Your task to perform on an android device: Open privacy settings Image 0: 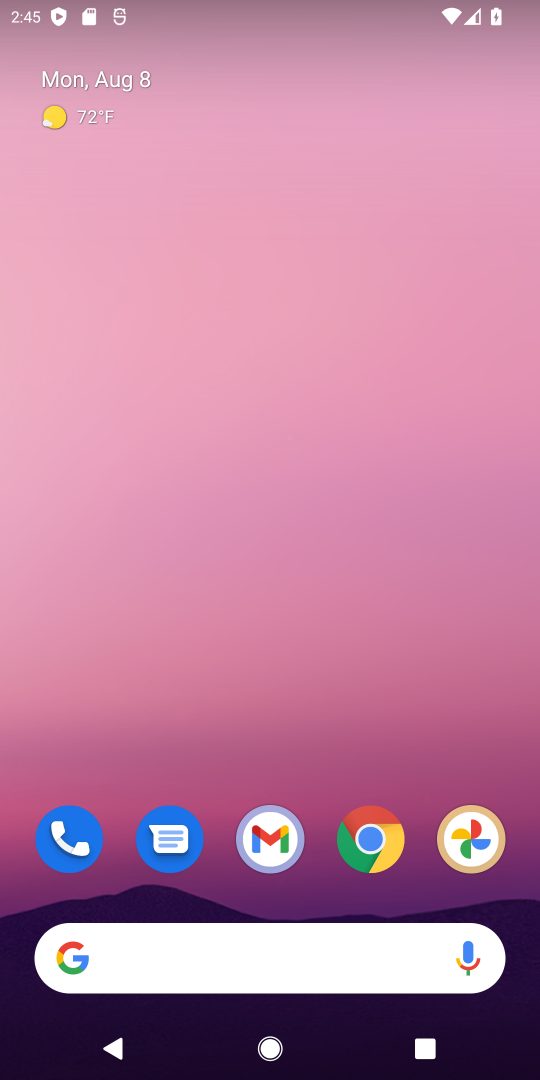
Step 0: drag from (421, 738) to (456, 163)
Your task to perform on an android device: Open privacy settings Image 1: 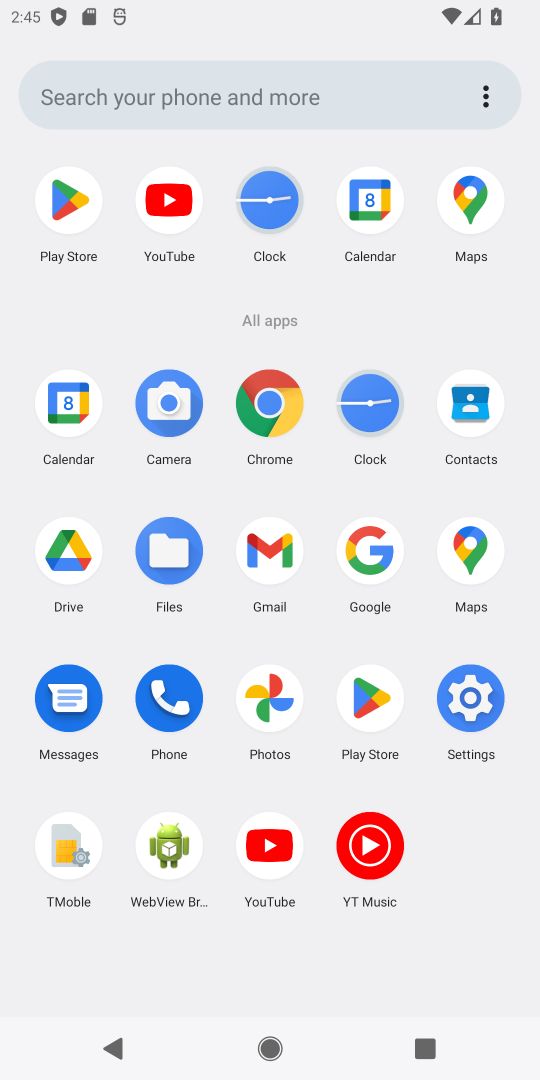
Step 1: click (453, 697)
Your task to perform on an android device: Open privacy settings Image 2: 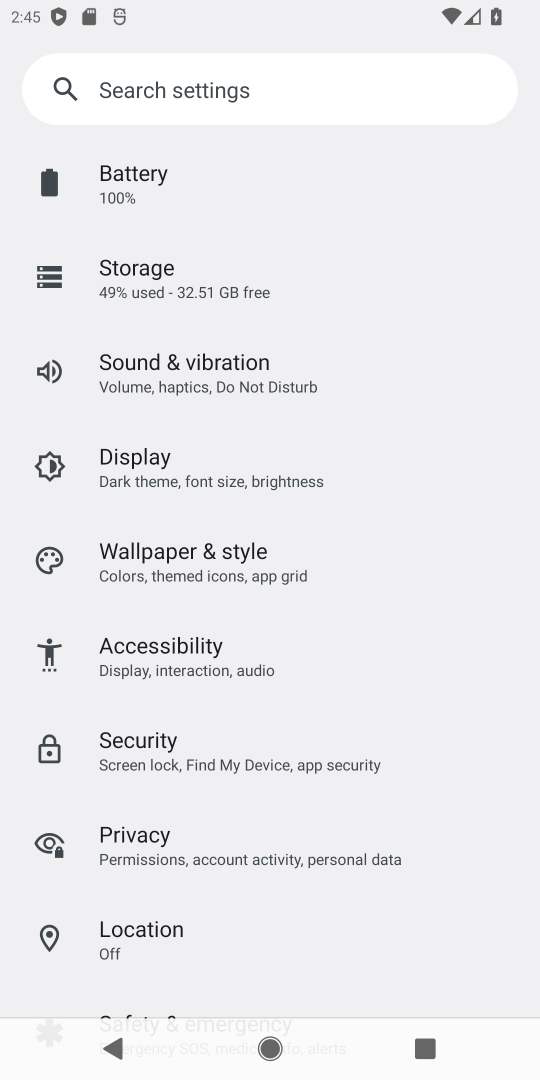
Step 2: drag from (455, 789) to (472, 656)
Your task to perform on an android device: Open privacy settings Image 3: 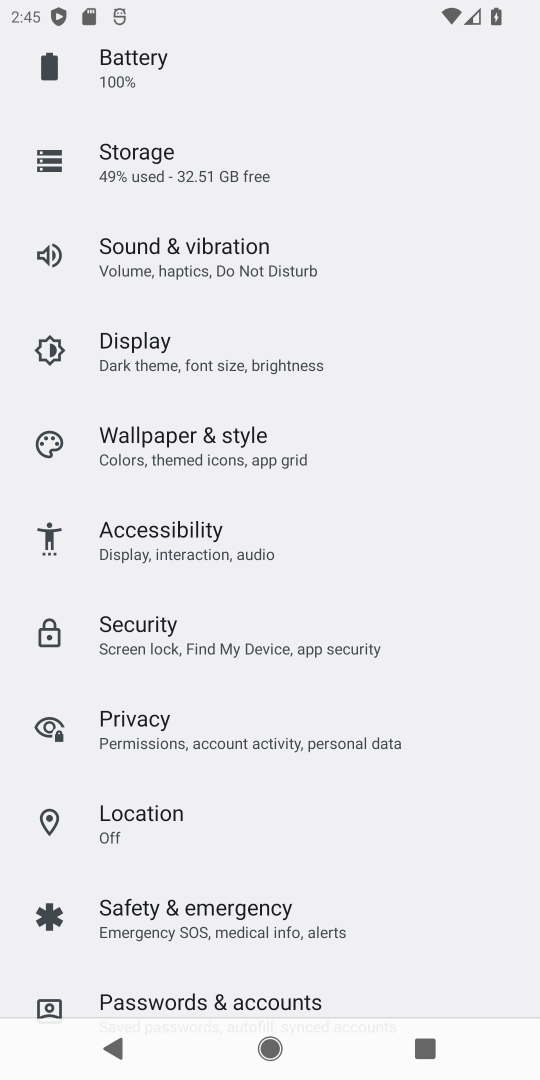
Step 3: drag from (436, 875) to (446, 687)
Your task to perform on an android device: Open privacy settings Image 4: 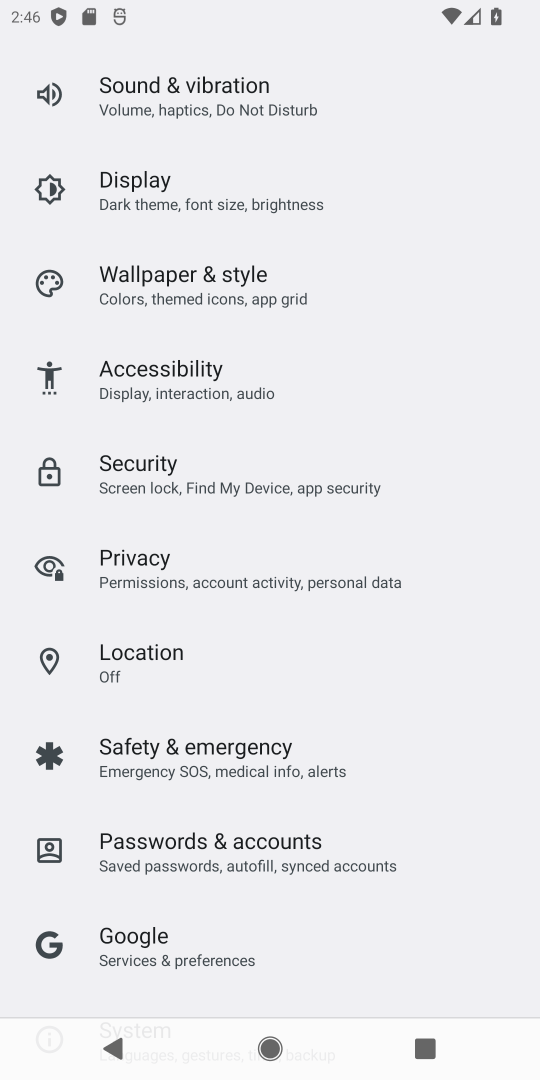
Step 4: drag from (460, 922) to (453, 732)
Your task to perform on an android device: Open privacy settings Image 5: 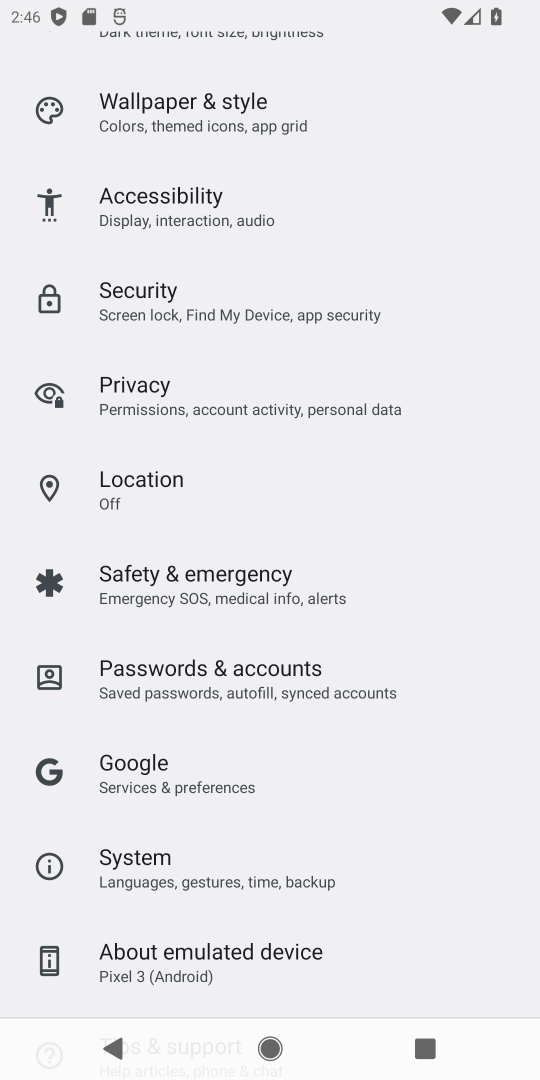
Step 5: drag from (454, 914) to (457, 684)
Your task to perform on an android device: Open privacy settings Image 6: 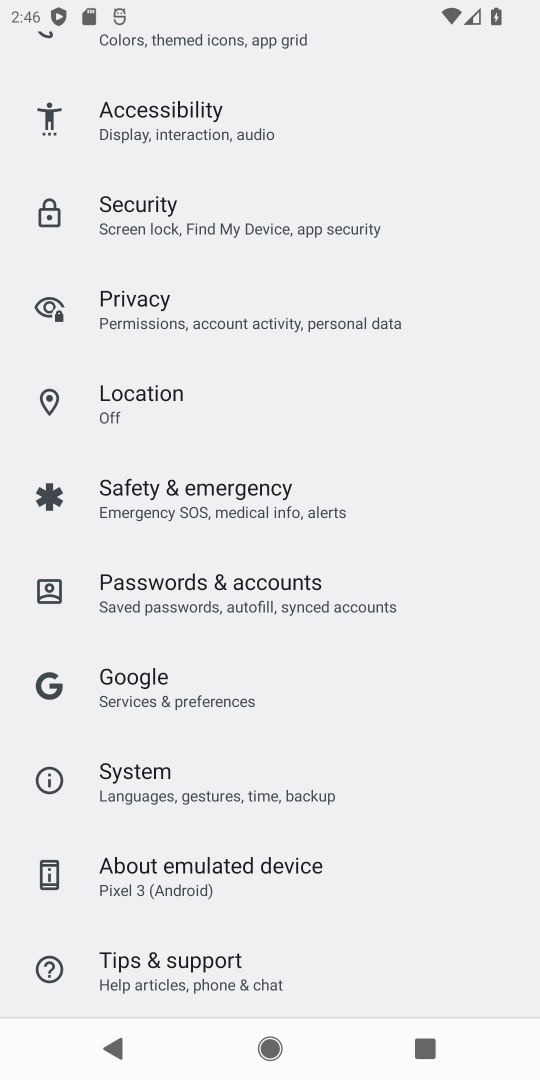
Step 6: drag from (471, 495) to (478, 734)
Your task to perform on an android device: Open privacy settings Image 7: 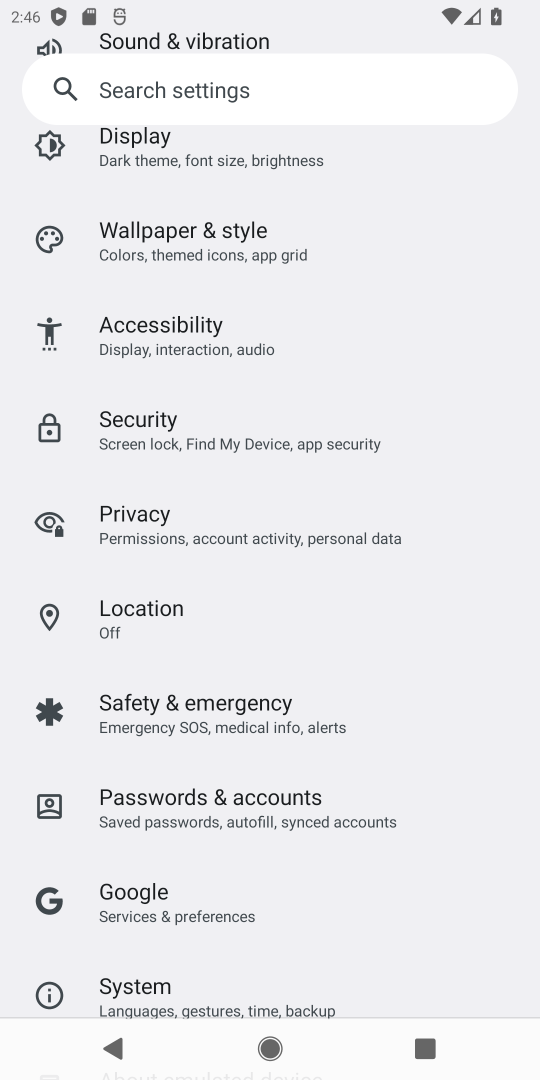
Step 7: drag from (470, 536) to (474, 707)
Your task to perform on an android device: Open privacy settings Image 8: 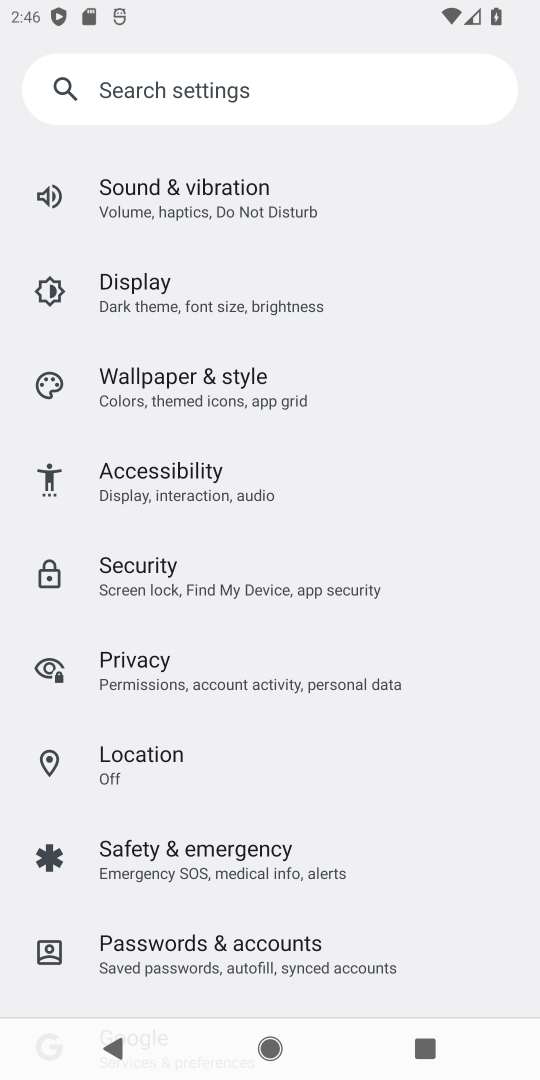
Step 8: drag from (479, 483) to (476, 684)
Your task to perform on an android device: Open privacy settings Image 9: 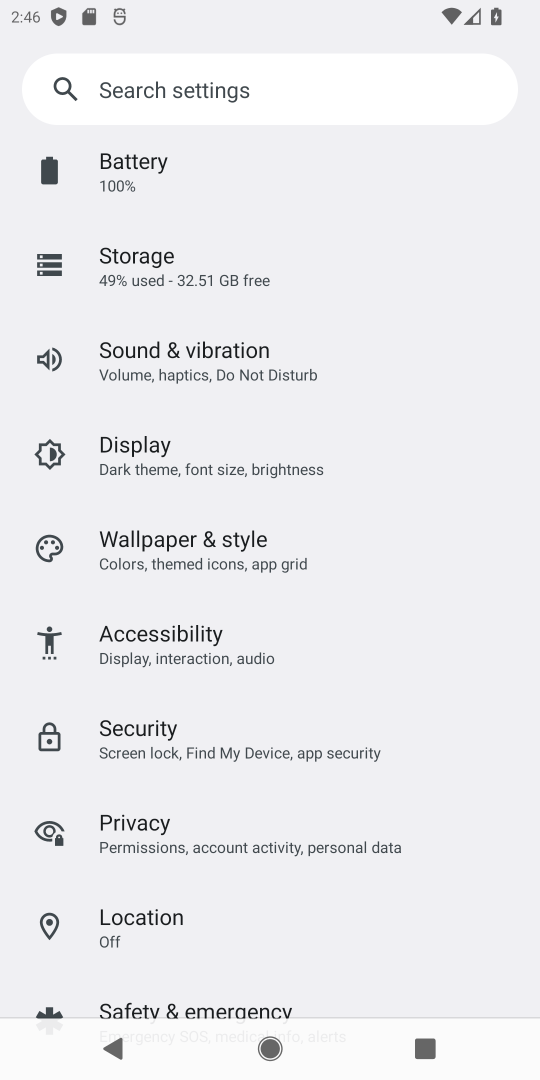
Step 9: drag from (457, 467) to (456, 649)
Your task to perform on an android device: Open privacy settings Image 10: 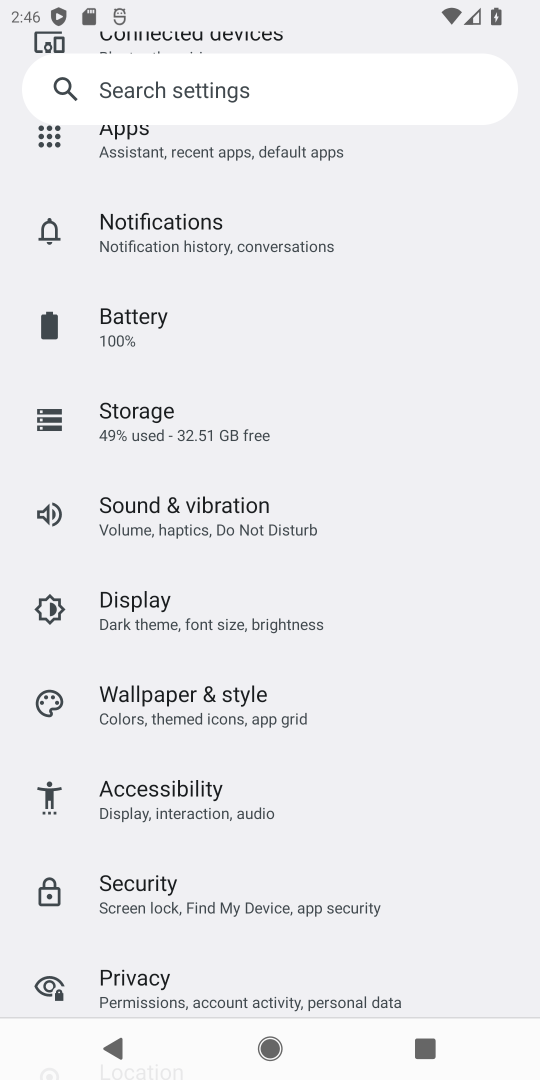
Step 10: drag from (456, 382) to (446, 515)
Your task to perform on an android device: Open privacy settings Image 11: 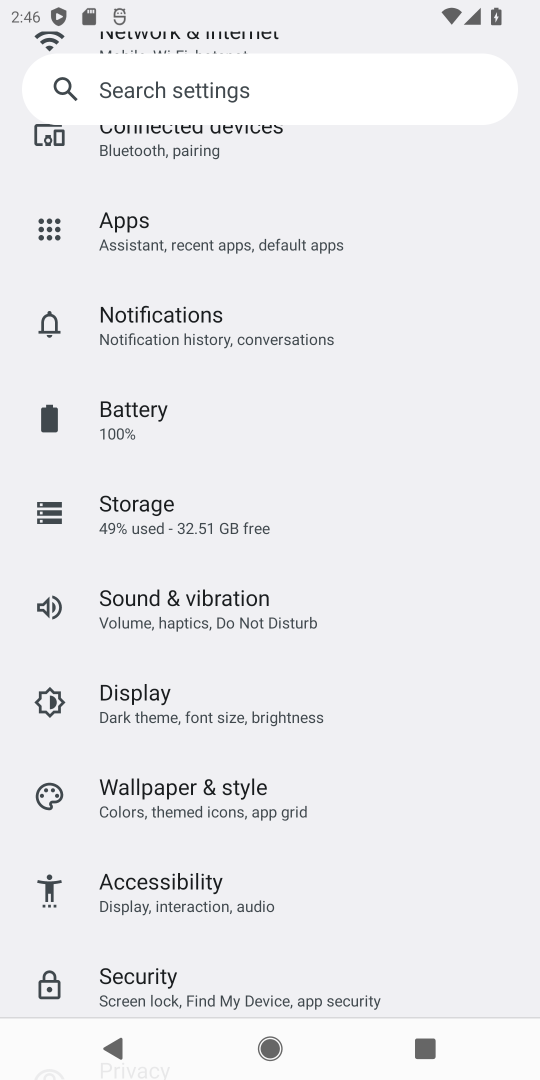
Step 11: drag from (423, 647) to (436, 470)
Your task to perform on an android device: Open privacy settings Image 12: 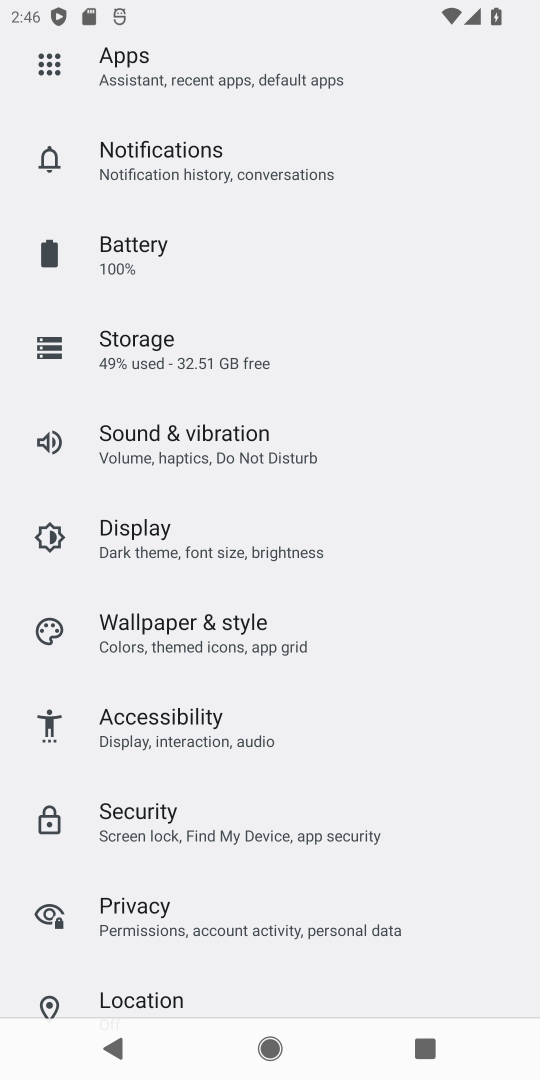
Step 12: drag from (449, 690) to (448, 487)
Your task to perform on an android device: Open privacy settings Image 13: 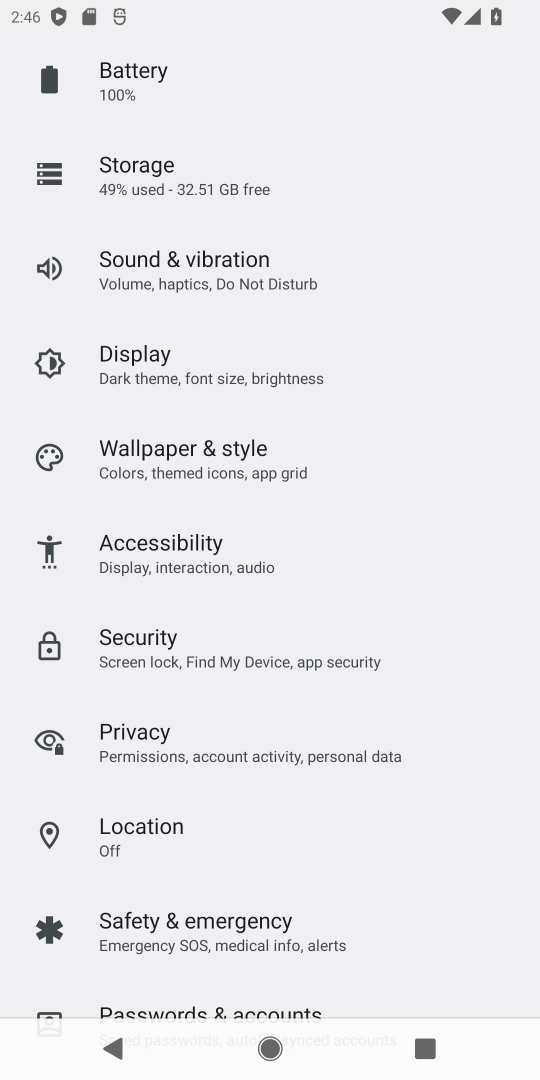
Step 13: drag from (437, 715) to (445, 495)
Your task to perform on an android device: Open privacy settings Image 14: 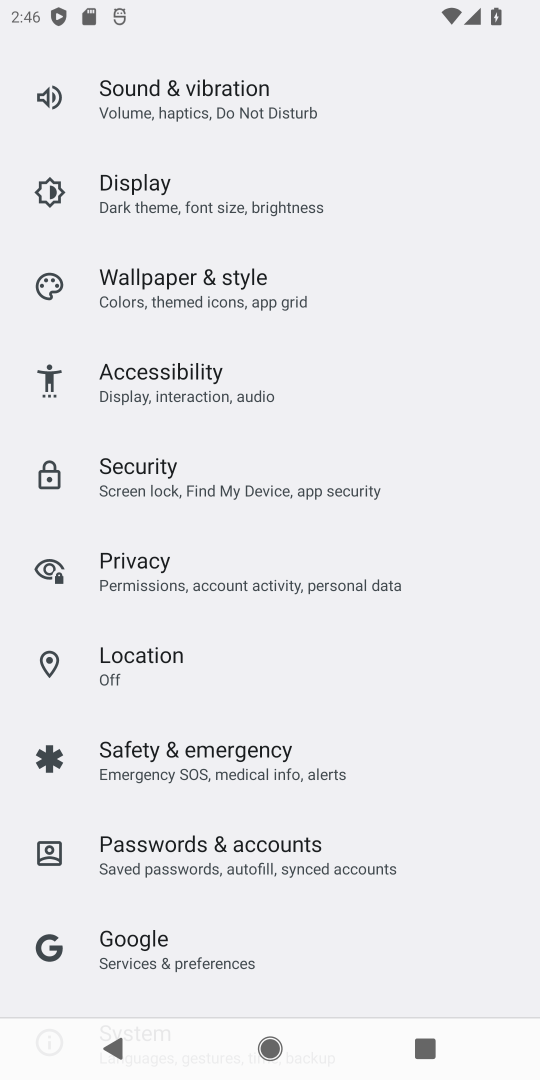
Step 14: drag from (459, 724) to (453, 530)
Your task to perform on an android device: Open privacy settings Image 15: 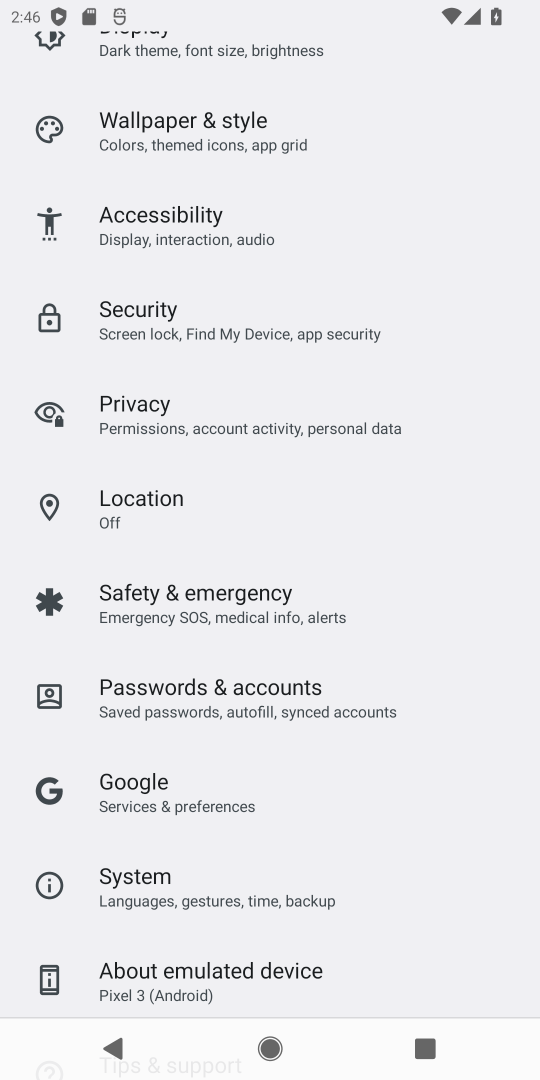
Step 15: click (401, 418)
Your task to perform on an android device: Open privacy settings Image 16: 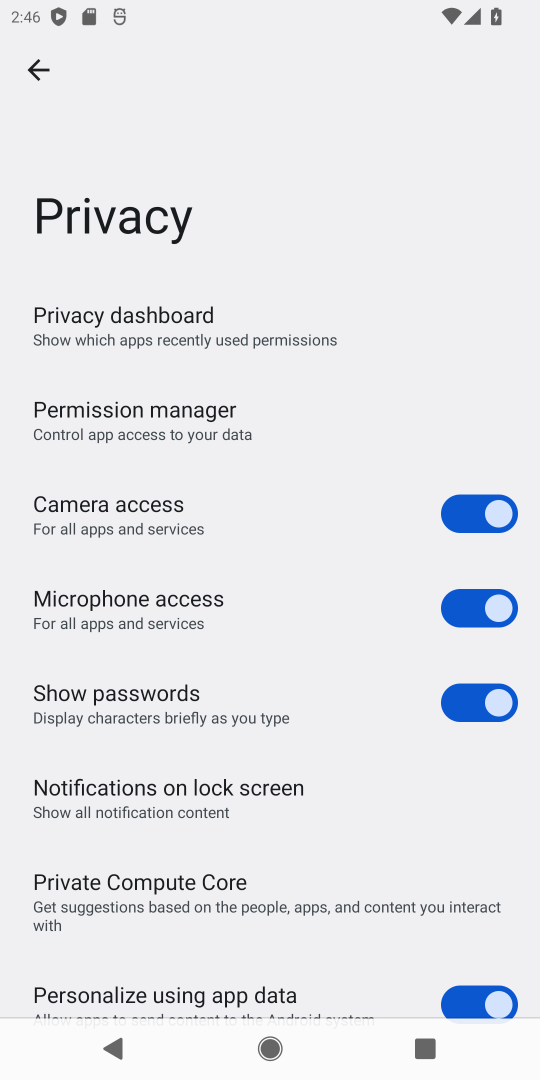
Step 16: task complete